Your task to perform on an android device: Open ESPN.com Image 0: 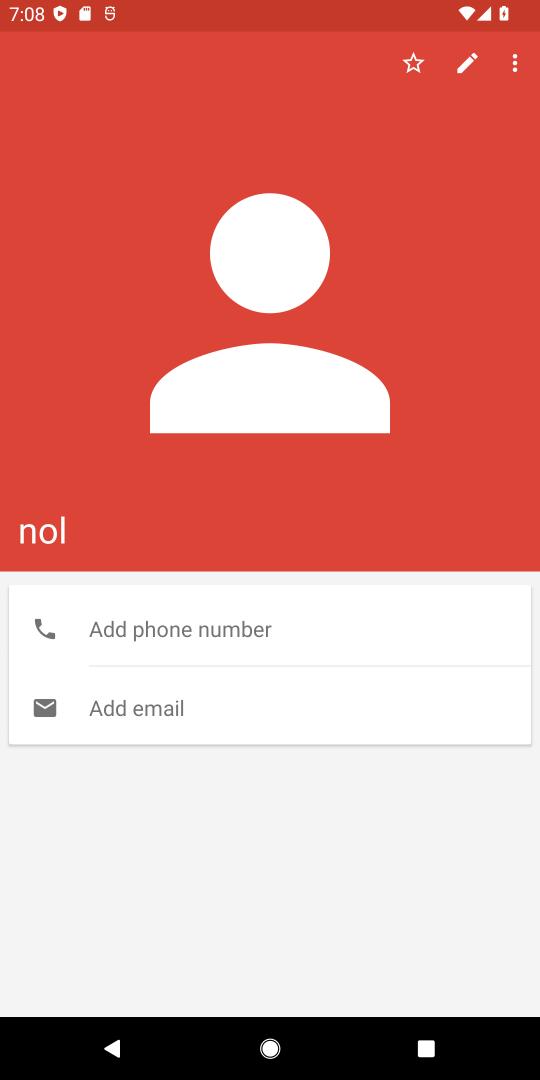
Step 0: press home button
Your task to perform on an android device: Open ESPN.com Image 1: 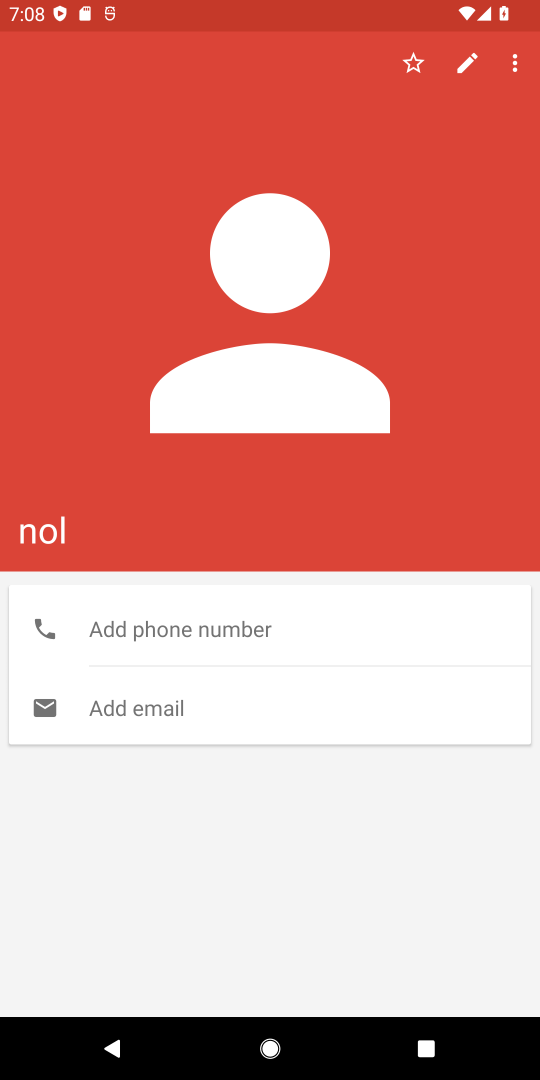
Step 1: press home button
Your task to perform on an android device: Open ESPN.com Image 2: 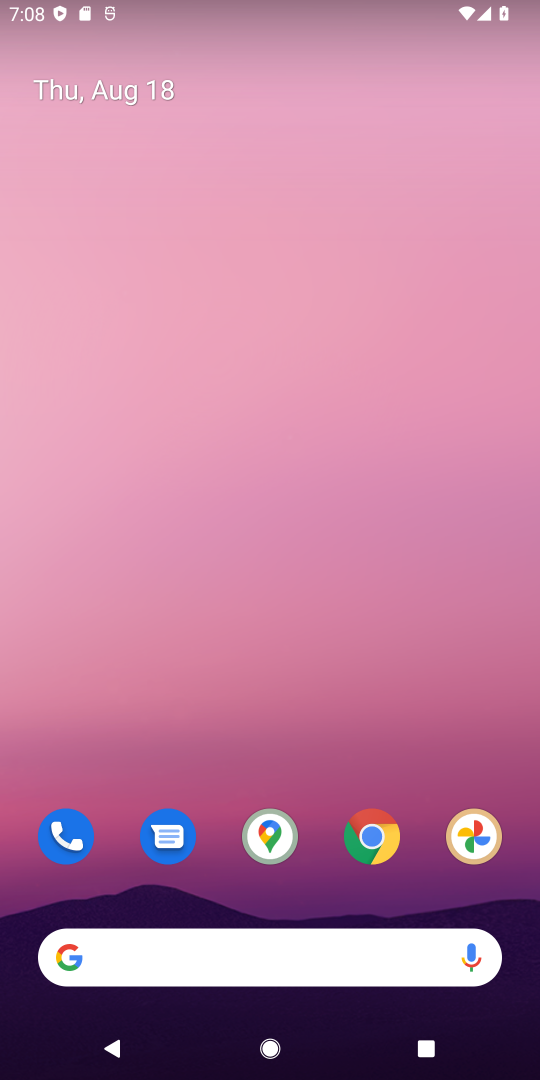
Step 2: drag from (336, 756) to (79, 24)
Your task to perform on an android device: Open ESPN.com Image 3: 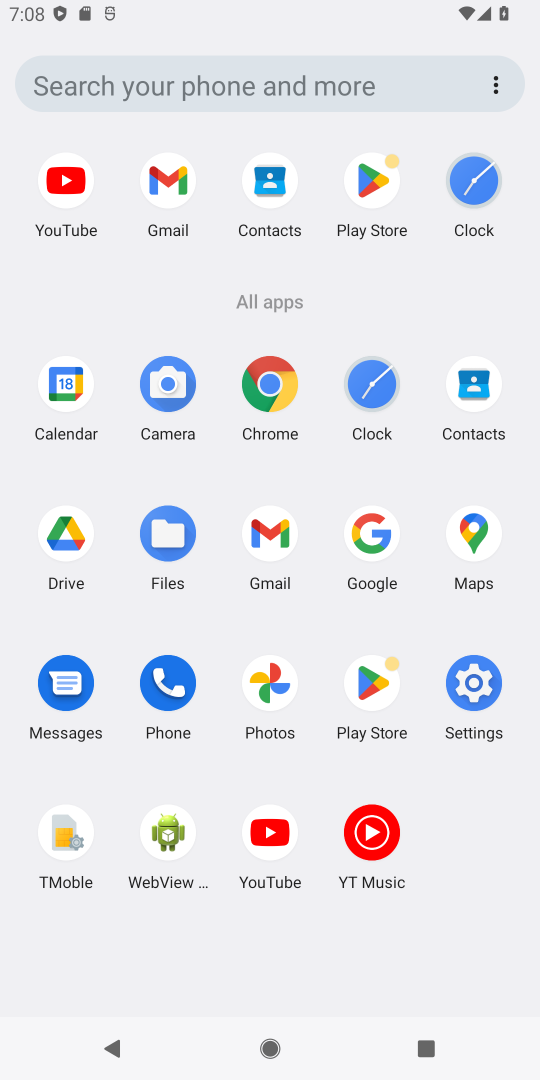
Step 3: click (266, 382)
Your task to perform on an android device: Open ESPN.com Image 4: 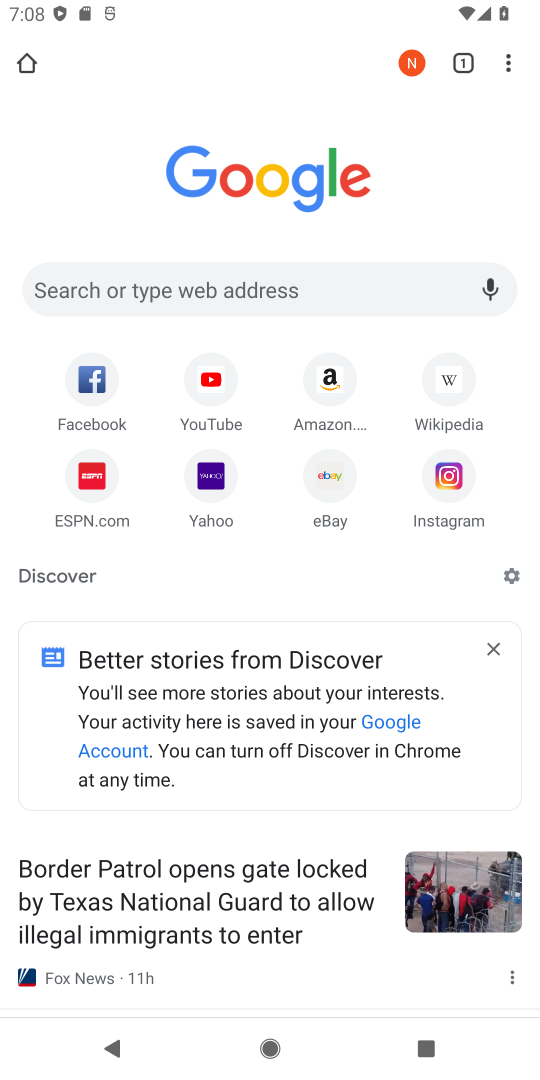
Step 4: click (88, 486)
Your task to perform on an android device: Open ESPN.com Image 5: 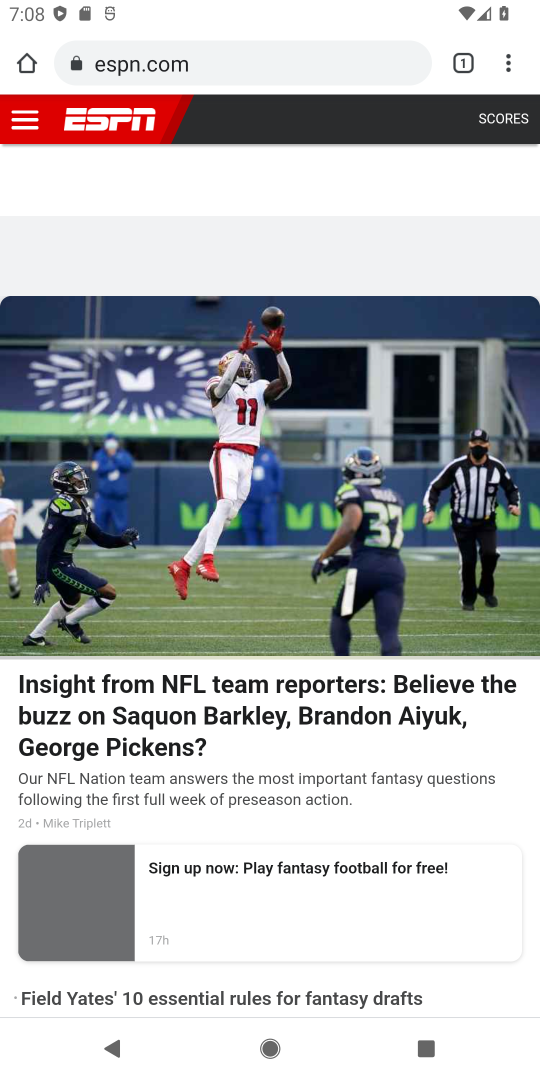
Step 5: task complete